Your task to perform on an android device: Go to sound settings Image 0: 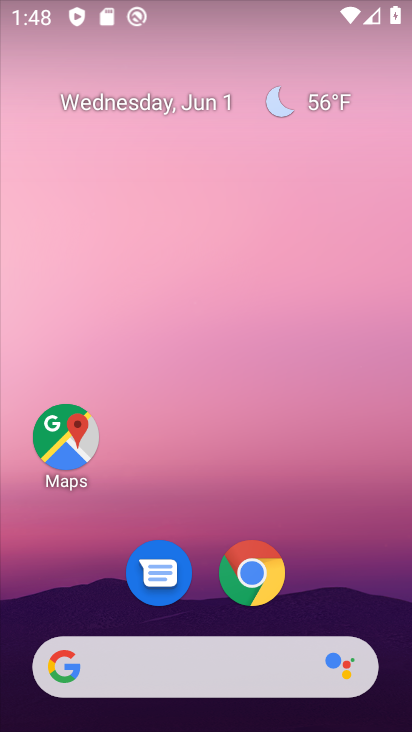
Step 0: drag from (202, 529) to (196, 304)
Your task to perform on an android device: Go to sound settings Image 1: 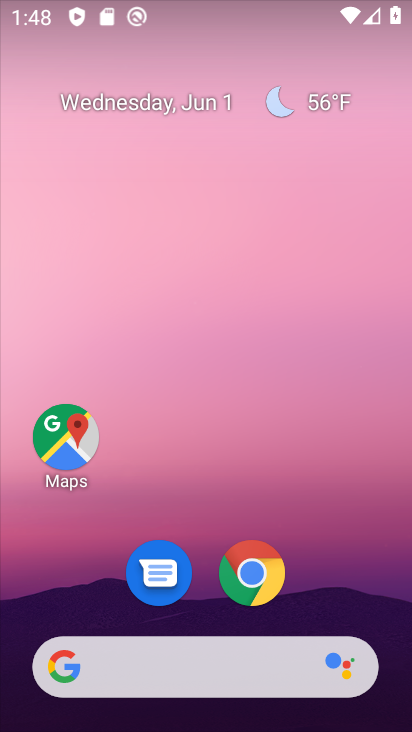
Step 1: drag from (201, 587) to (193, 168)
Your task to perform on an android device: Go to sound settings Image 2: 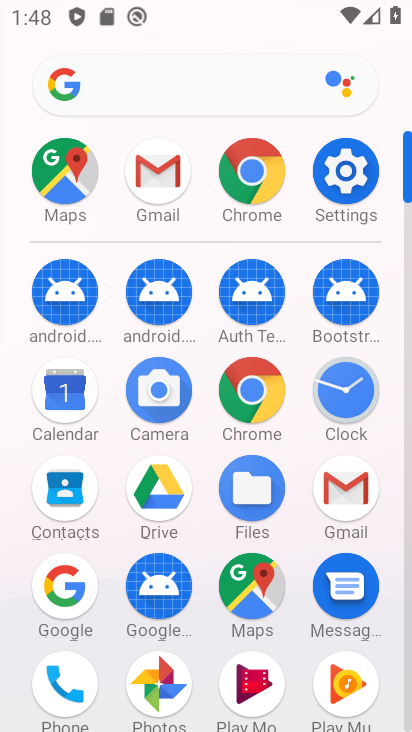
Step 2: click (368, 173)
Your task to perform on an android device: Go to sound settings Image 3: 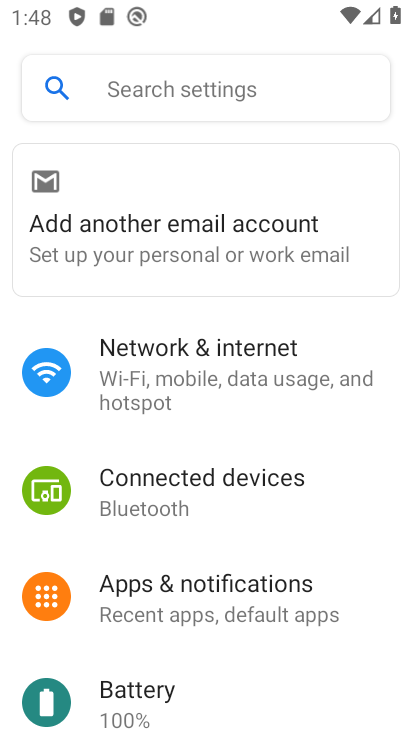
Step 3: drag from (197, 609) to (217, 261)
Your task to perform on an android device: Go to sound settings Image 4: 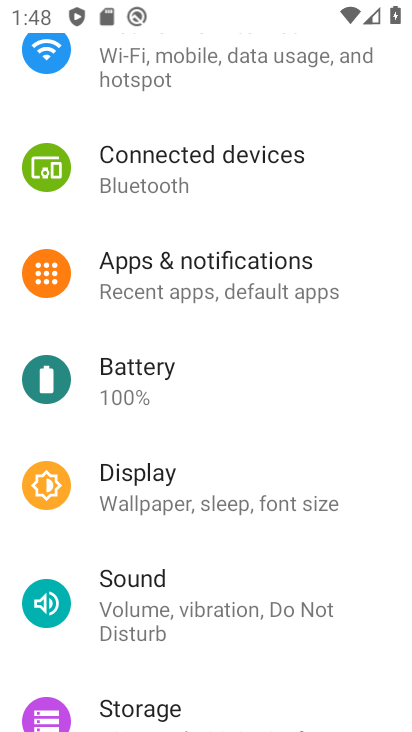
Step 4: drag from (243, 264) to (299, 114)
Your task to perform on an android device: Go to sound settings Image 5: 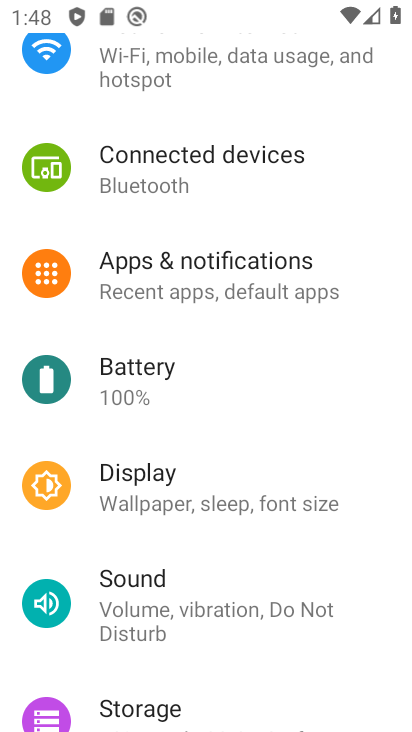
Step 5: click (157, 609)
Your task to perform on an android device: Go to sound settings Image 6: 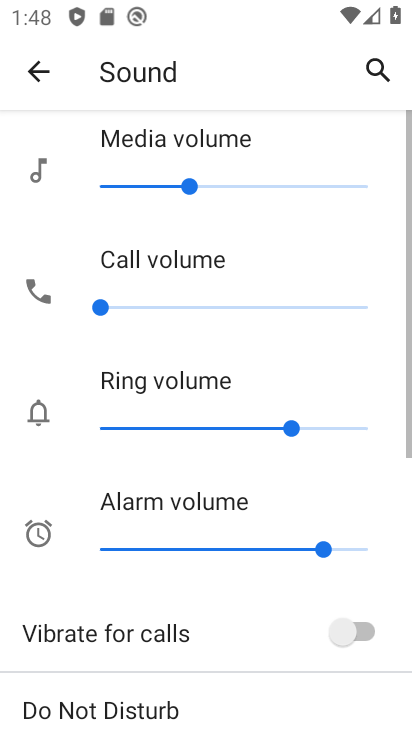
Step 6: task complete